Your task to perform on an android device: turn off javascript in the chrome app Image 0: 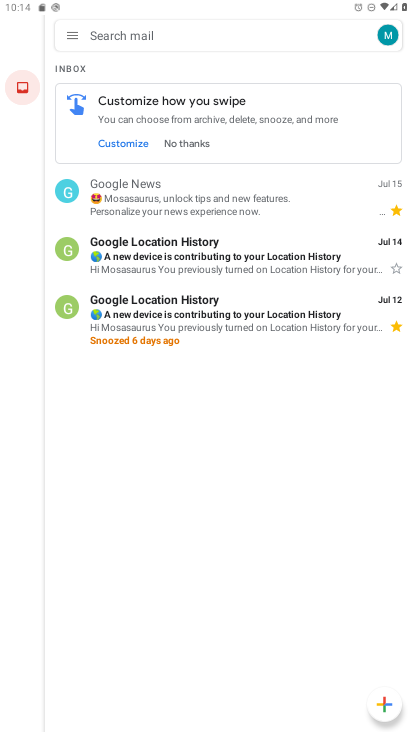
Step 0: press home button
Your task to perform on an android device: turn off javascript in the chrome app Image 1: 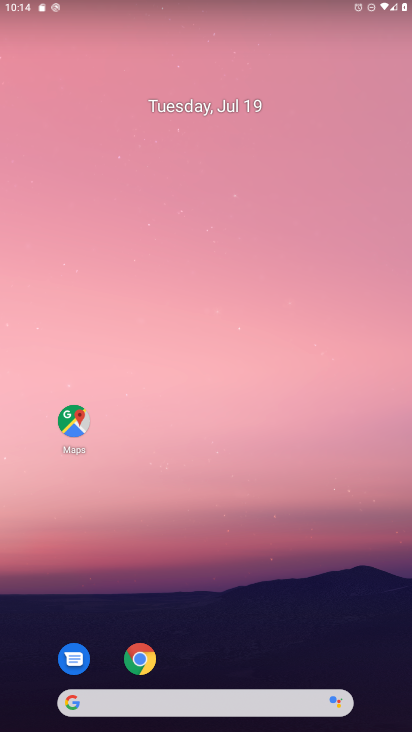
Step 1: click (135, 649)
Your task to perform on an android device: turn off javascript in the chrome app Image 2: 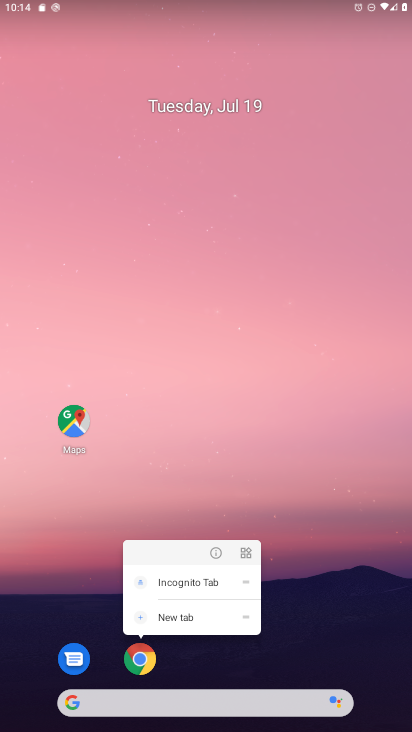
Step 2: click (139, 656)
Your task to perform on an android device: turn off javascript in the chrome app Image 3: 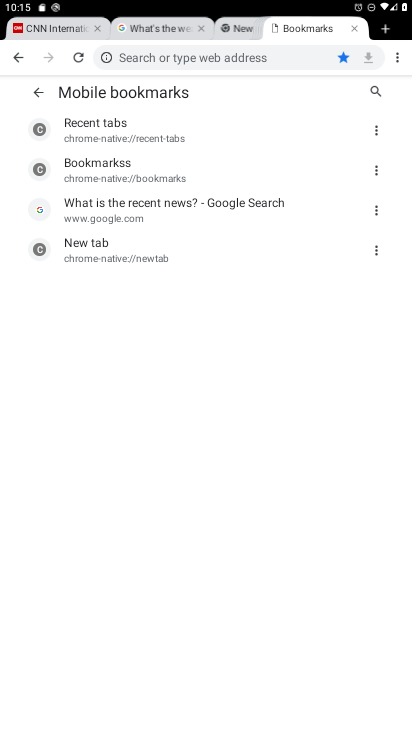
Step 3: click (405, 46)
Your task to perform on an android device: turn off javascript in the chrome app Image 4: 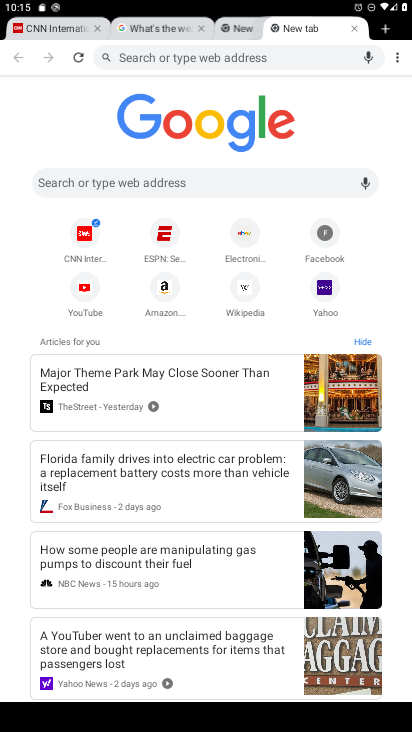
Step 4: click (397, 54)
Your task to perform on an android device: turn off javascript in the chrome app Image 5: 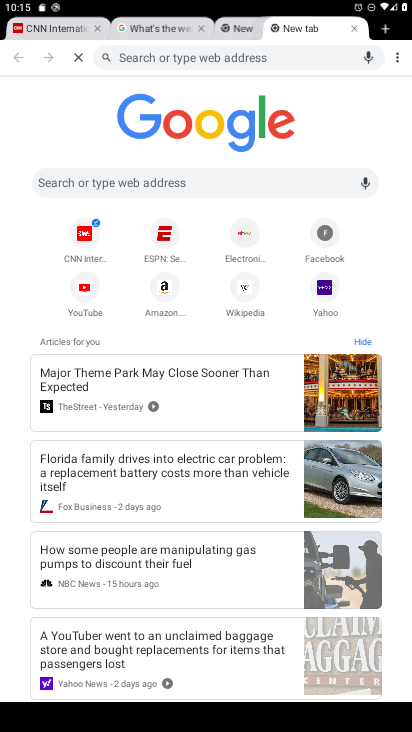
Step 5: click (397, 56)
Your task to perform on an android device: turn off javascript in the chrome app Image 6: 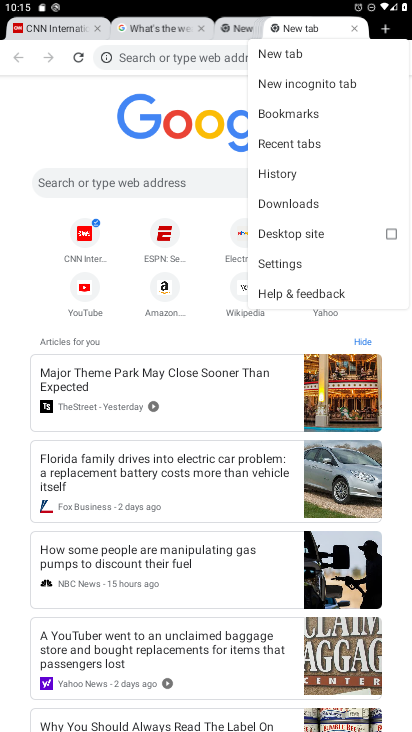
Step 6: click (292, 262)
Your task to perform on an android device: turn off javascript in the chrome app Image 7: 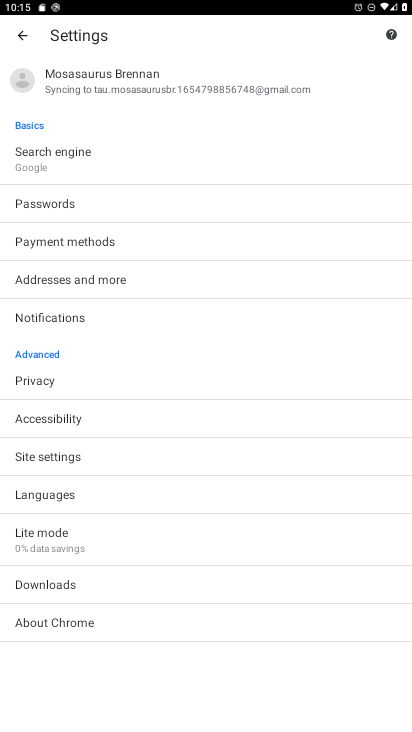
Step 7: click (127, 457)
Your task to perform on an android device: turn off javascript in the chrome app Image 8: 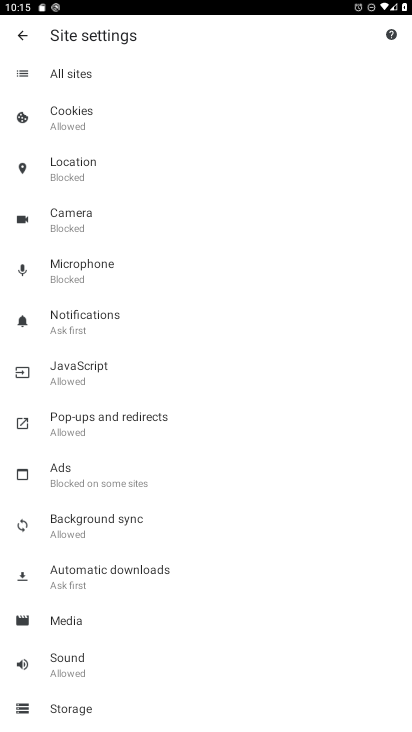
Step 8: click (133, 372)
Your task to perform on an android device: turn off javascript in the chrome app Image 9: 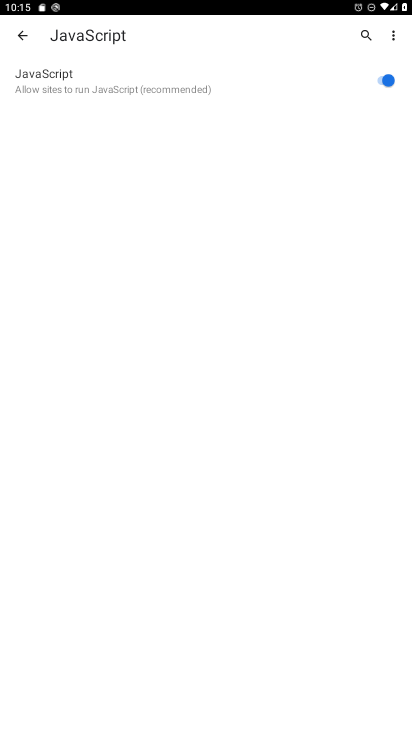
Step 9: click (381, 75)
Your task to perform on an android device: turn off javascript in the chrome app Image 10: 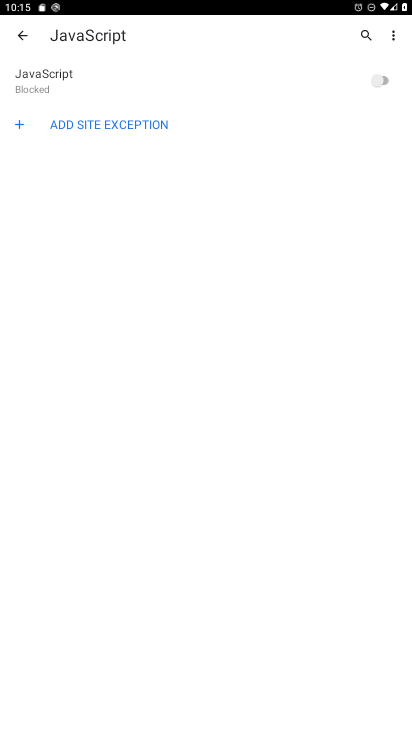
Step 10: task complete